Your task to perform on an android device: change timer sound Image 0: 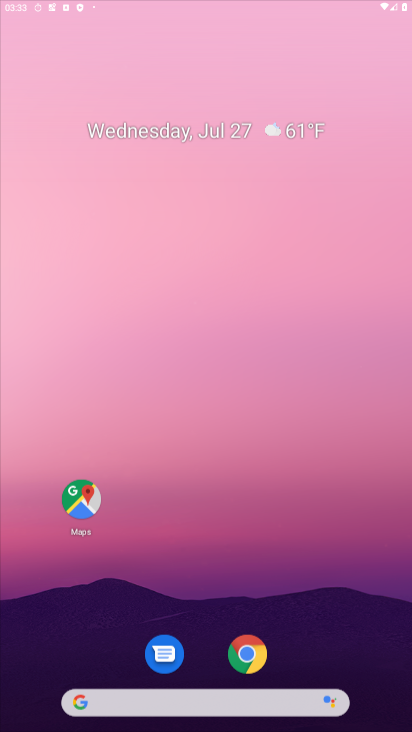
Step 0: press home button
Your task to perform on an android device: change timer sound Image 1: 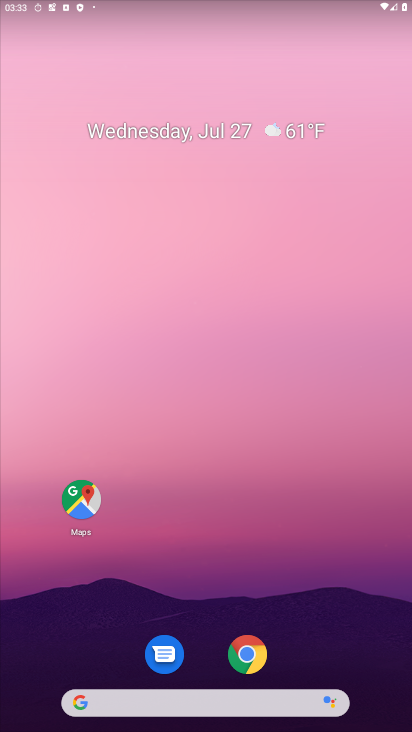
Step 1: press back button
Your task to perform on an android device: change timer sound Image 2: 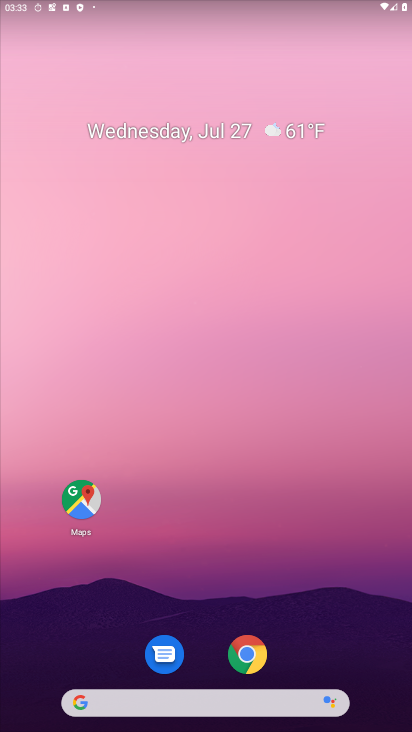
Step 2: press home button
Your task to perform on an android device: change timer sound Image 3: 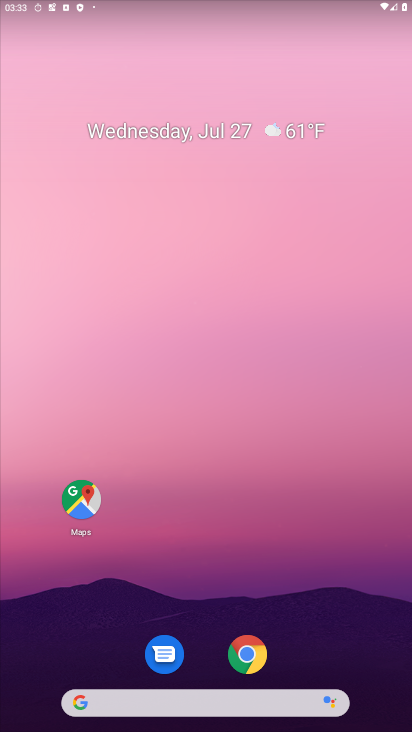
Step 3: drag from (297, 714) to (184, 102)
Your task to perform on an android device: change timer sound Image 4: 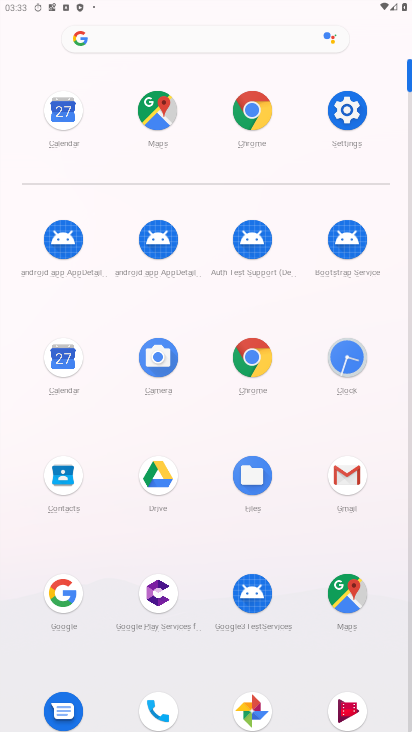
Step 4: click (348, 346)
Your task to perform on an android device: change timer sound Image 5: 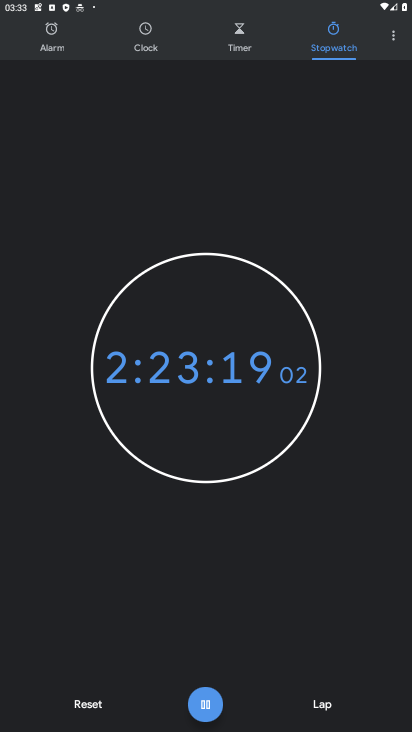
Step 5: click (396, 37)
Your task to perform on an android device: change timer sound Image 6: 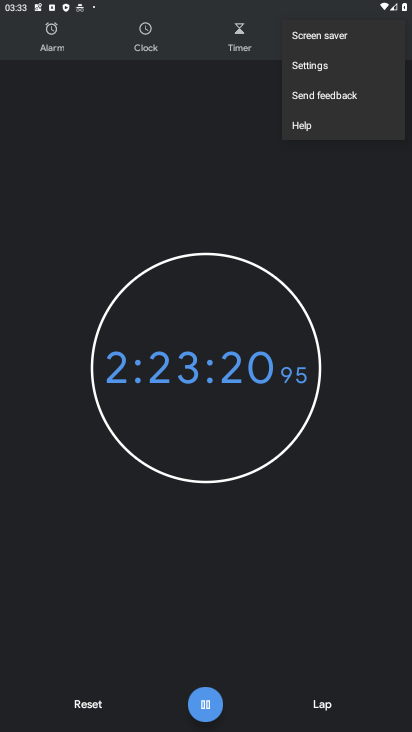
Step 6: click (336, 69)
Your task to perform on an android device: change timer sound Image 7: 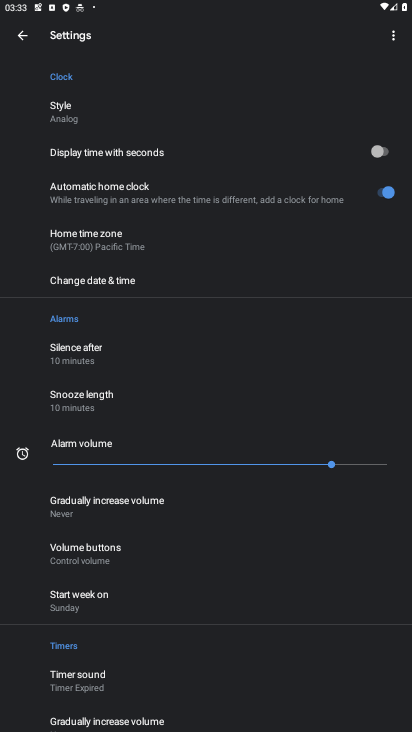
Step 7: click (139, 681)
Your task to perform on an android device: change timer sound Image 8: 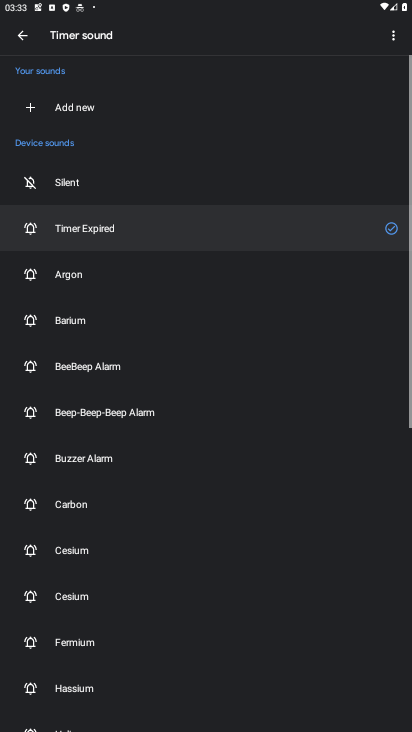
Step 8: click (76, 264)
Your task to perform on an android device: change timer sound Image 9: 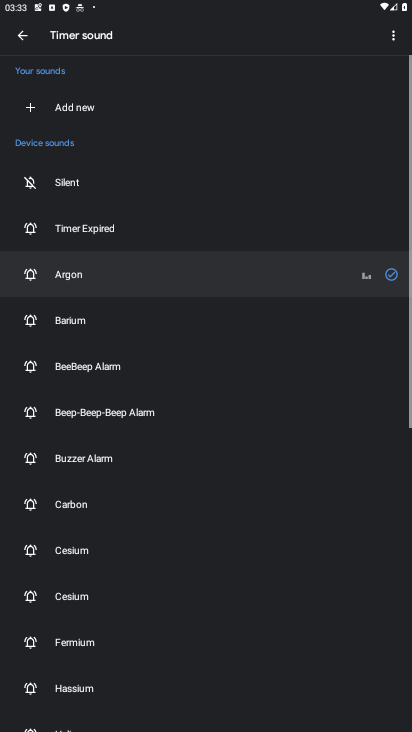
Step 9: task complete